Your task to perform on an android device: turn on improve location accuracy Image 0: 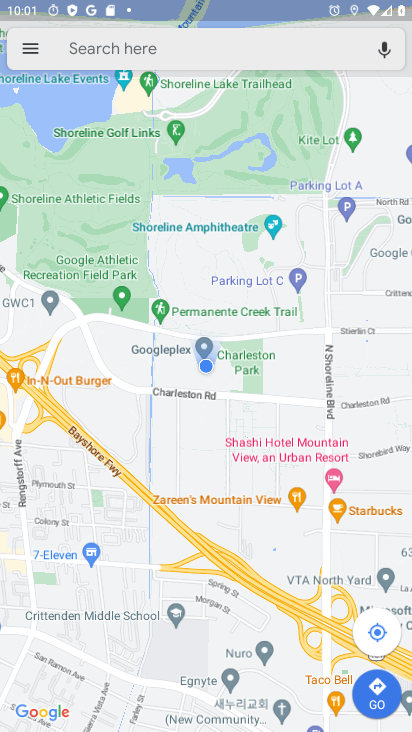
Step 0: press home button
Your task to perform on an android device: turn on improve location accuracy Image 1: 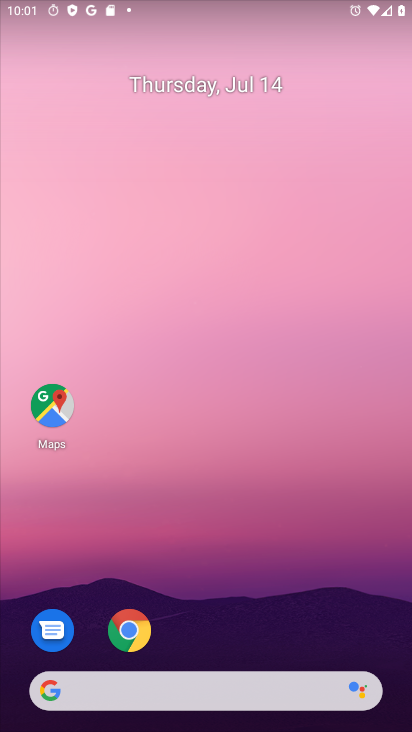
Step 1: drag from (17, 723) to (201, 166)
Your task to perform on an android device: turn on improve location accuracy Image 2: 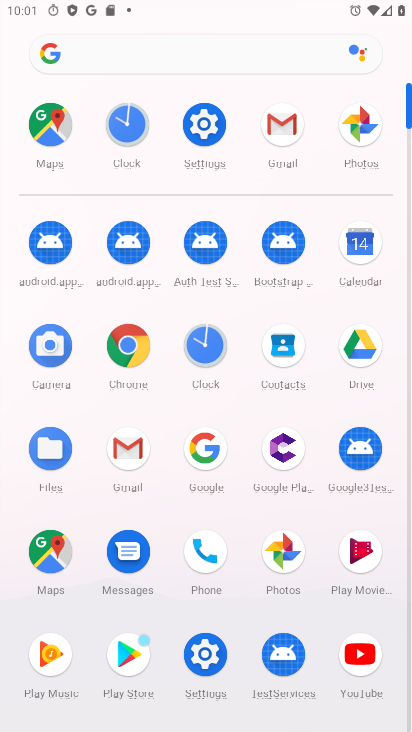
Step 2: click (192, 663)
Your task to perform on an android device: turn on improve location accuracy Image 3: 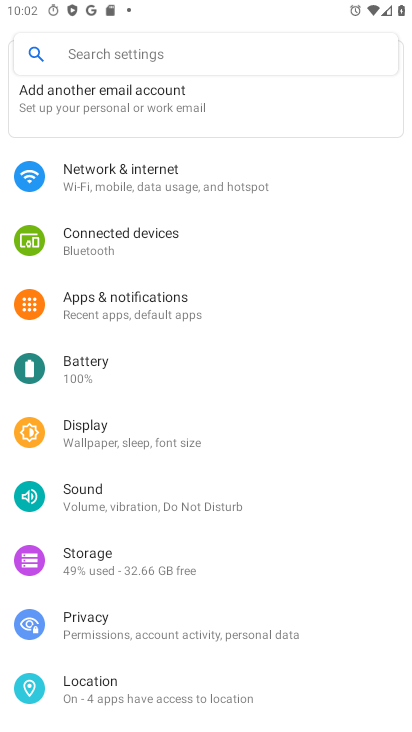
Step 3: click (105, 699)
Your task to perform on an android device: turn on improve location accuracy Image 4: 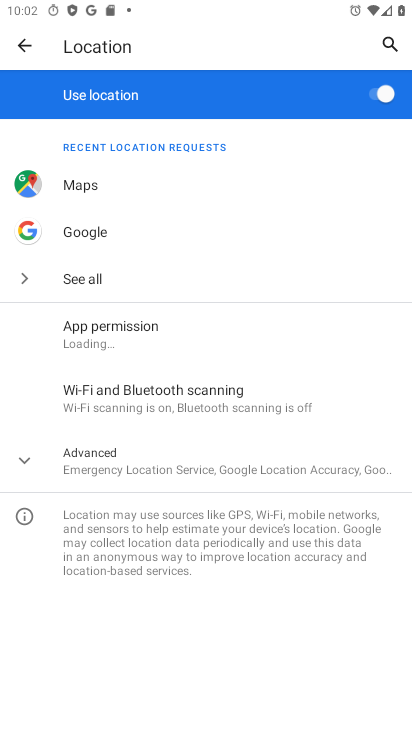
Step 4: click (116, 469)
Your task to perform on an android device: turn on improve location accuracy Image 5: 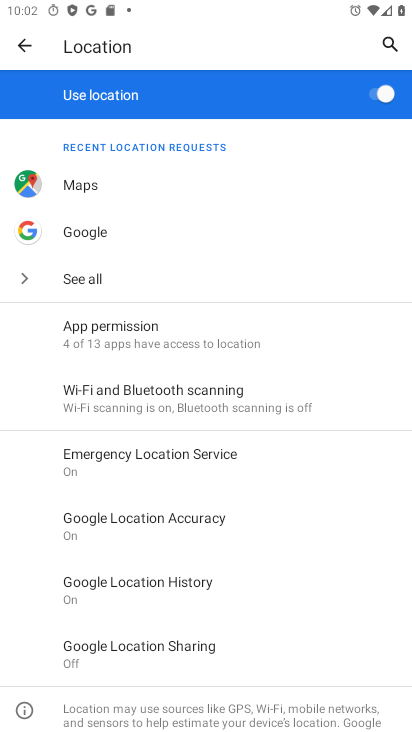
Step 5: task complete